Your task to perform on an android device: Open the web browser Image 0: 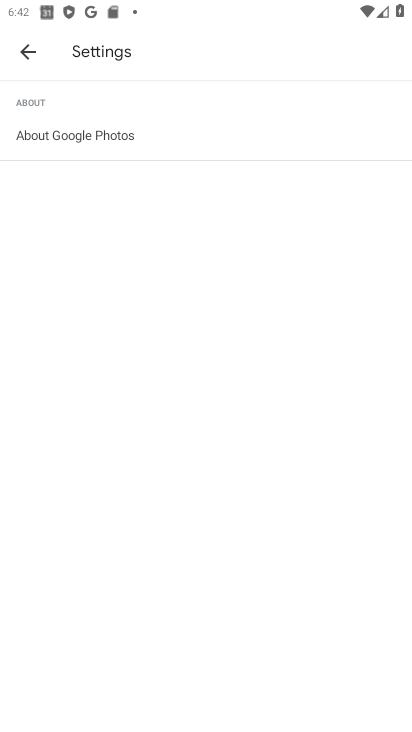
Step 0: press home button
Your task to perform on an android device: Open the web browser Image 1: 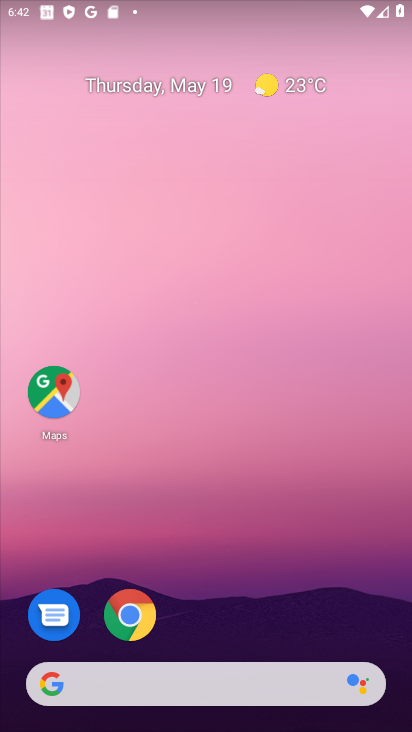
Step 1: drag from (323, 612) to (249, 47)
Your task to perform on an android device: Open the web browser Image 2: 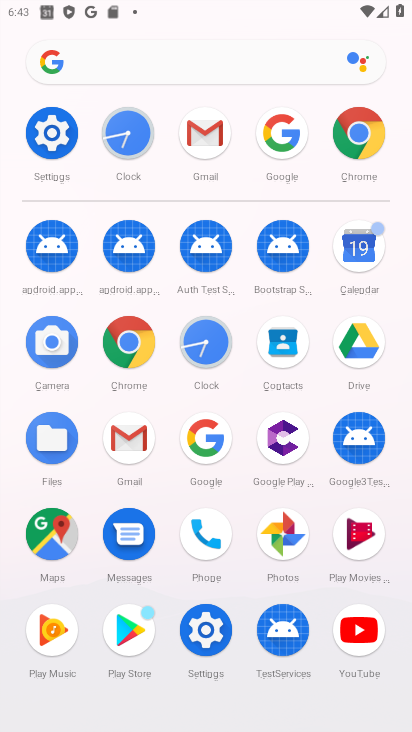
Step 2: click (130, 348)
Your task to perform on an android device: Open the web browser Image 3: 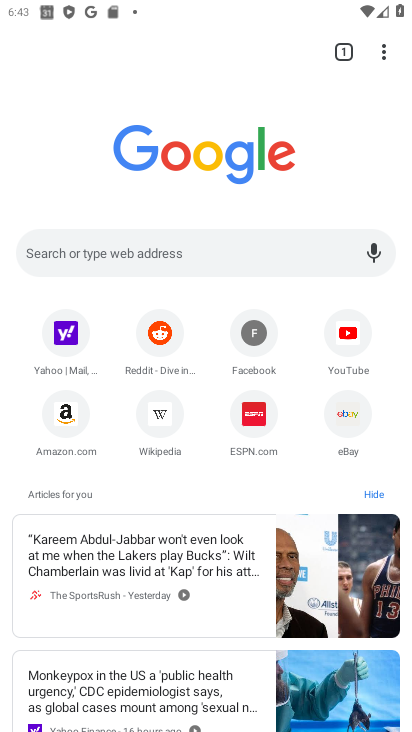
Step 3: task complete